Your task to perform on an android device: delete the emails in spam in the gmail app Image 0: 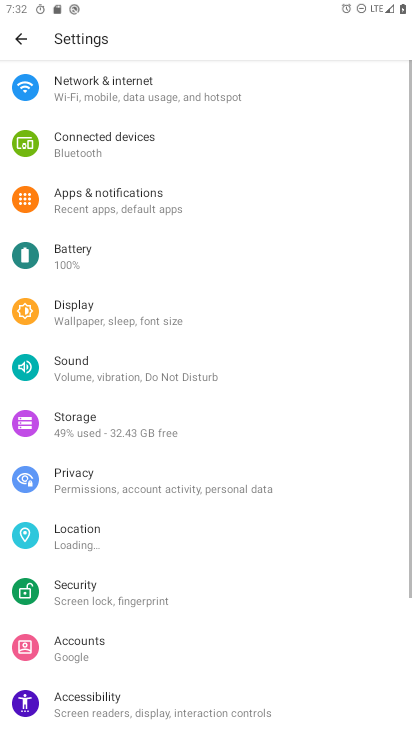
Step 0: press home button
Your task to perform on an android device: delete the emails in spam in the gmail app Image 1: 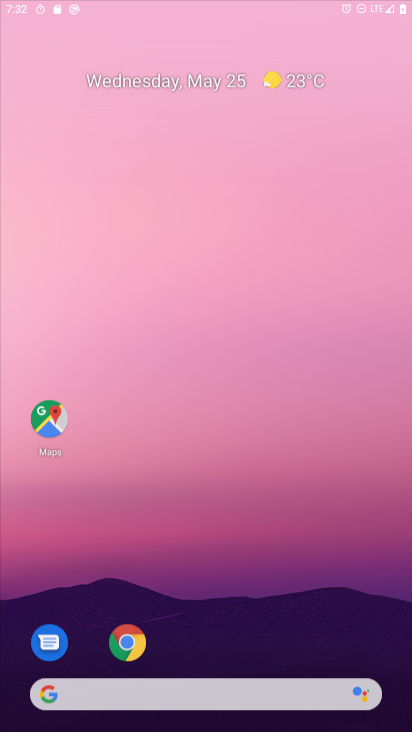
Step 1: drag from (347, 647) to (290, 47)
Your task to perform on an android device: delete the emails in spam in the gmail app Image 2: 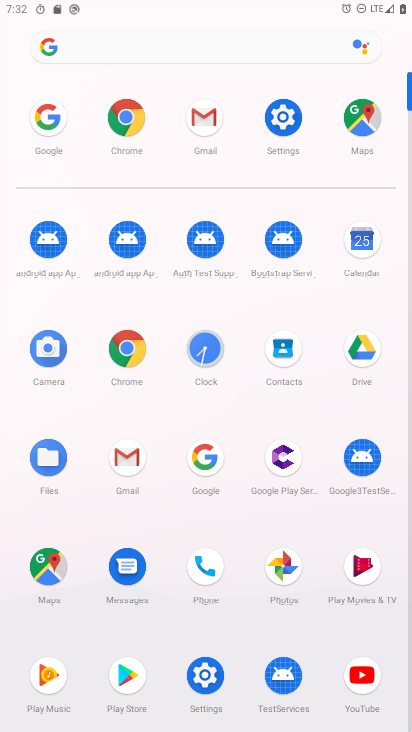
Step 2: click (119, 452)
Your task to perform on an android device: delete the emails in spam in the gmail app Image 3: 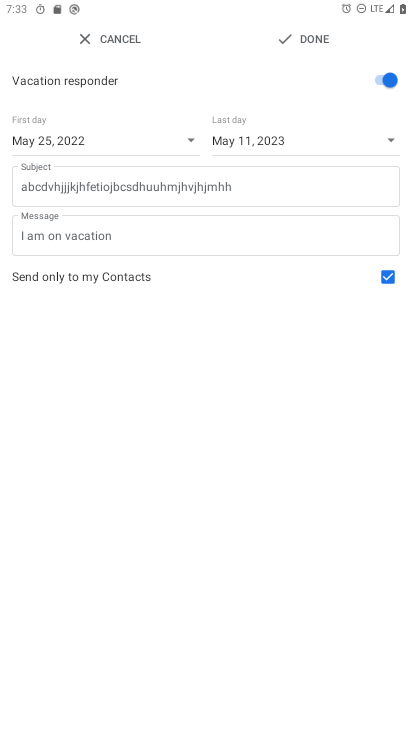
Step 3: press back button
Your task to perform on an android device: delete the emails in spam in the gmail app Image 4: 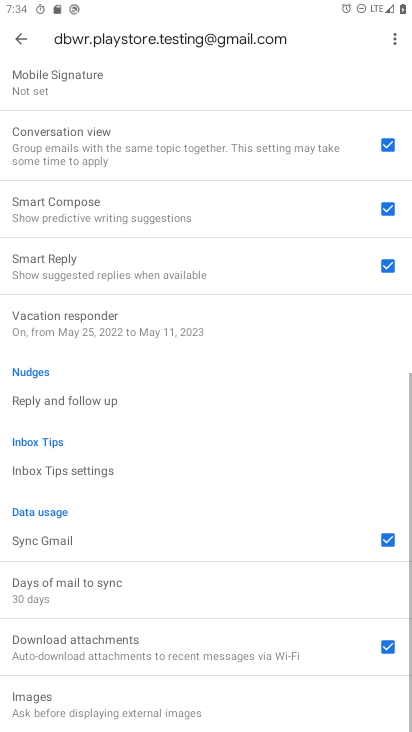
Step 4: press back button
Your task to perform on an android device: delete the emails in spam in the gmail app Image 5: 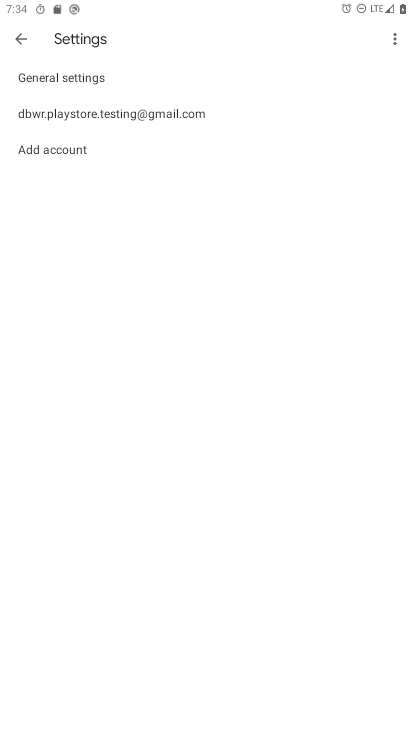
Step 5: press back button
Your task to perform on an android device: delete the emails in spam in the gmail app Image 6: 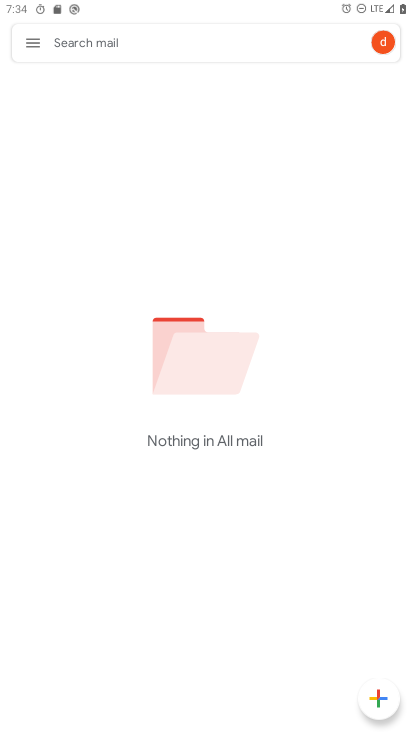
Step 6: click (23, 41)
Your task to perform on an android device: delete the emails in spam in the gmail app Image 7: 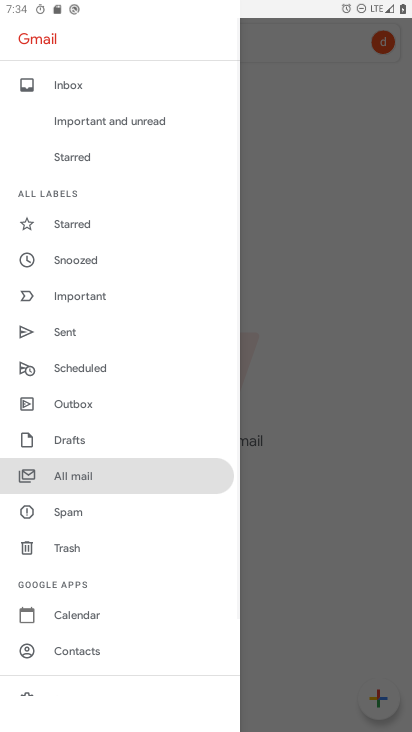
Step 7: click (83, 515)
Your task to perform on an android device: delete the emails in spam in the gmail app Image 8: 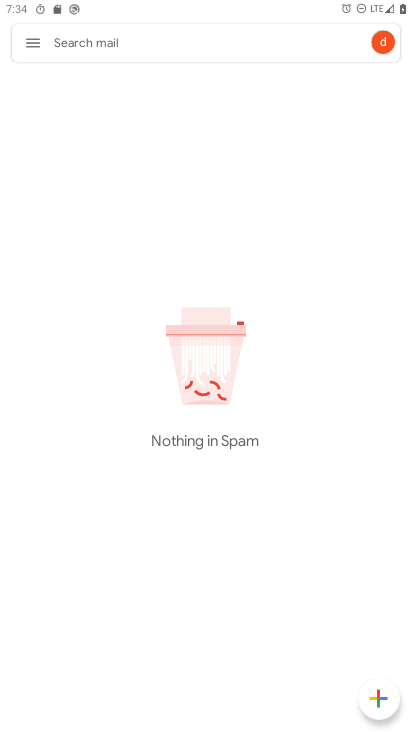
Step 8: task complete